Your task to perform on an android device: turn on priority inbox in the gmail app Image 0: 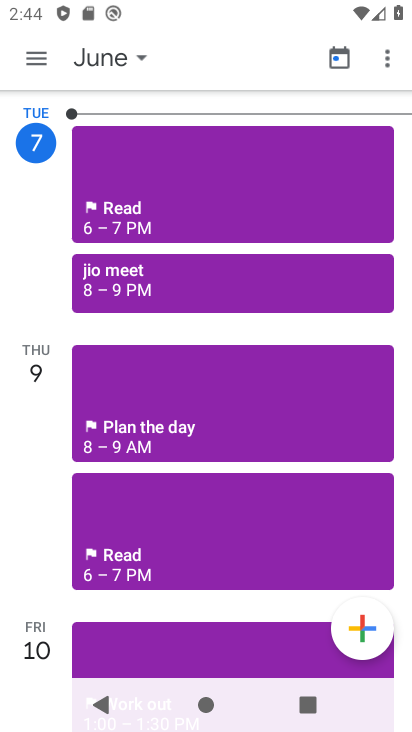
Step 0: drag from (268, 592) to (320, 146)
Your task to perform on an android device: turn on priority inbox in the gmail app Image 1: 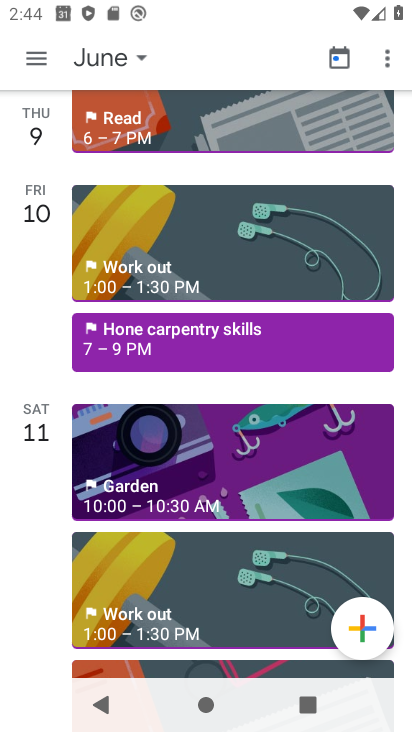
Step 1: press home button
Your task to perform on an android device: turn on priority inbox in the gmail app Image 2: 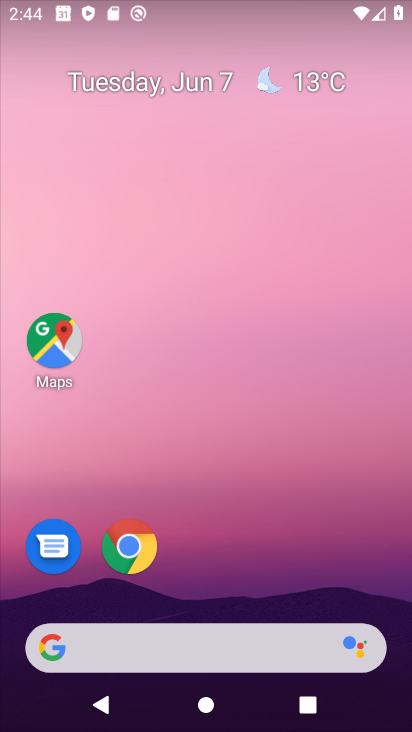
Step 2: drag from (234, 549) to (315, 81)
Your task to perform on an android device: turn on priority inbox in the gmail app Image 3: 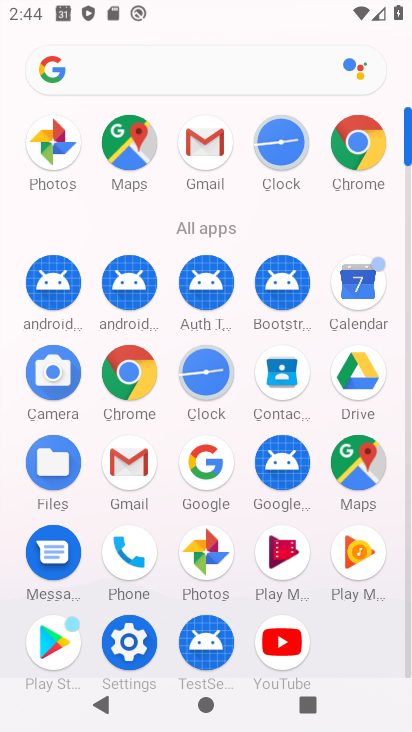
Step 3: click (140, 472)
Your task to perform on an android device: turn on priority inbox in the gmail app Image 4: 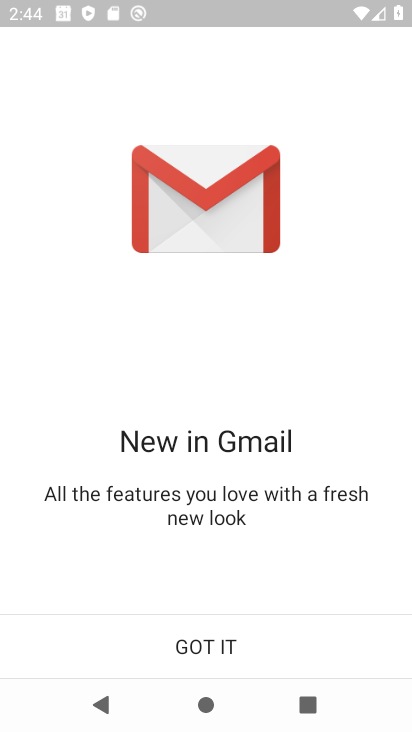
Step 4: click (217, 660)
Your task to perform on an android device: turn on priority inbox in the gmail app Image 5: 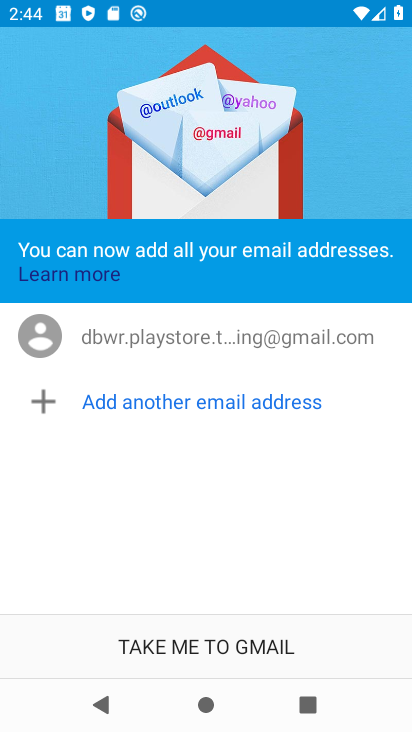
Step 5: click (186, 641)
Your task to perform on an android device: turn on priority inbox in the gmail app Image 6: 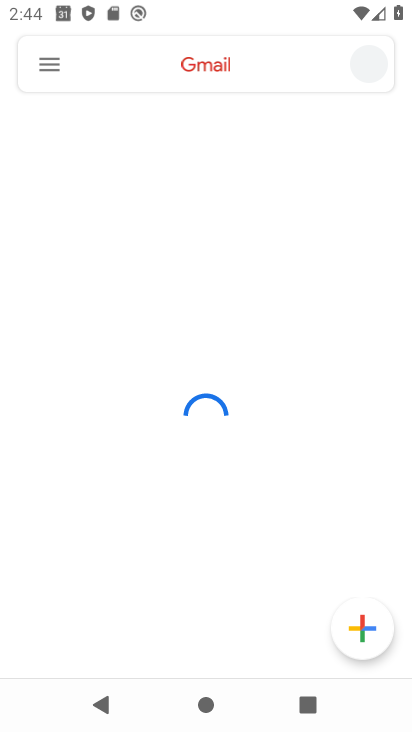
Step 6: click (53, 71)
Your task to perform on an android device: turn on priority inbox in the gmail app Image 7: 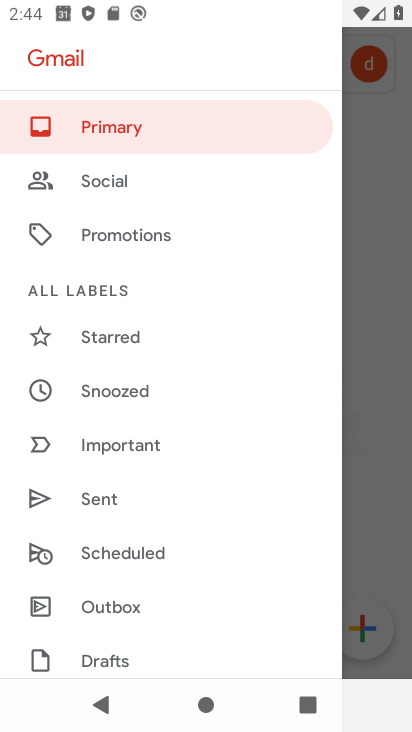
Step 7: drag from (126, 581) to (180, 123)
Your task to perform on an android device: turn on priority inbox in the gmail app Image 8: 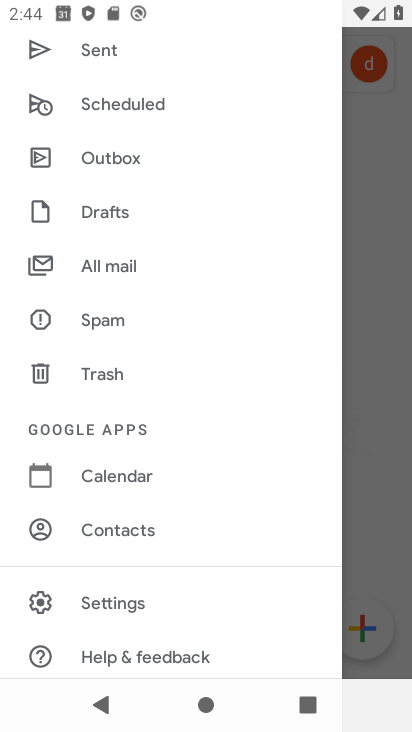
Step 8: click (118, 596)
Your task to perform on an android device: turn on priority inbox in the gmail app Image 9: 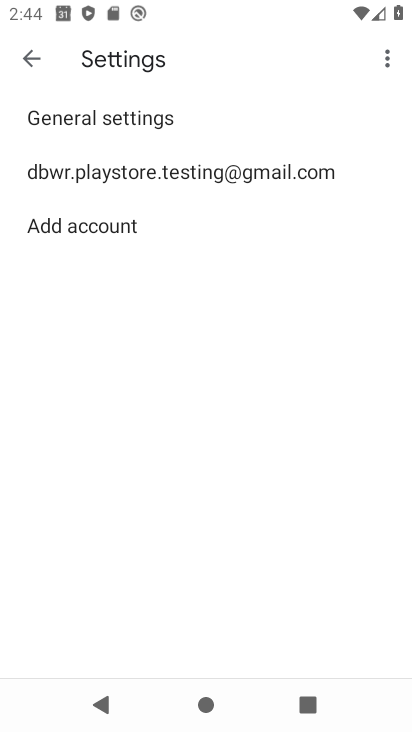
Step 9: click (170, 174)
Your task to perform on an android device: turn on priority inbox in the gmail app Image 10: 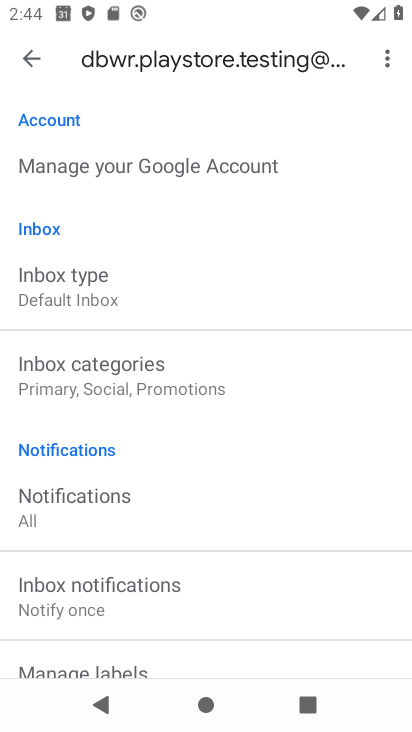
Step 10: click (77, 273)
Your task to perform on an android device: turn on priority inbox in the gmail app Image 11: 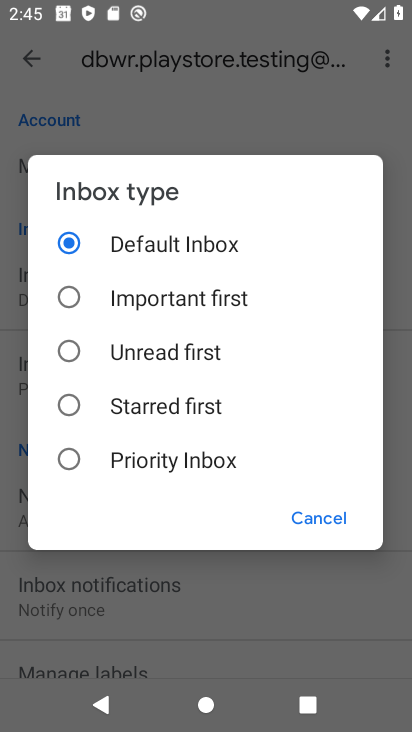
Step 11: click (81, 459)
Your task to perform on an android device: turn on priority inbox in the gmail app Image 12: 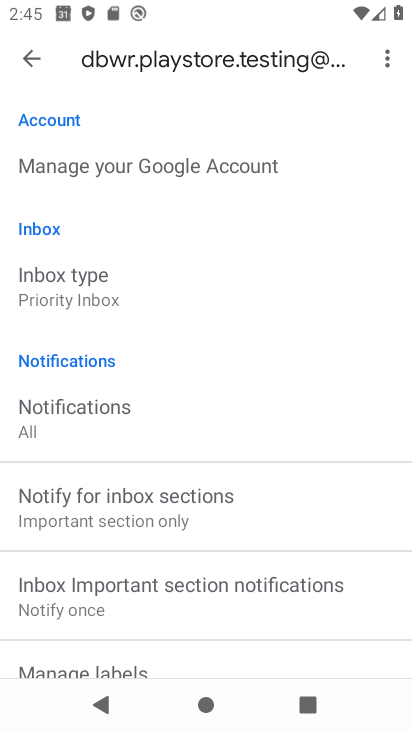
Step 12: task complete